Your task to perform on an android device: turn off location history Image 0: 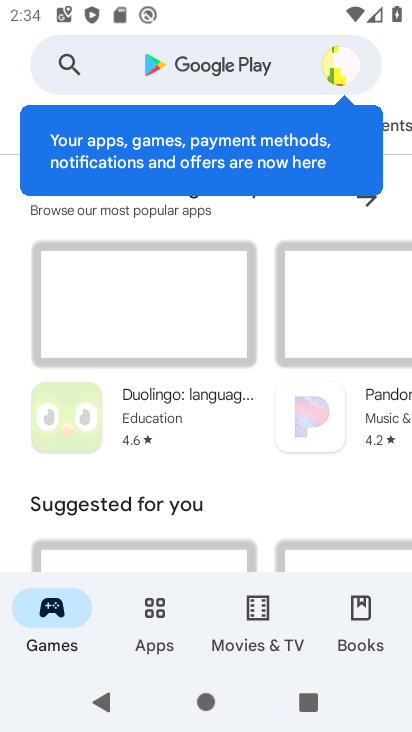
Step 0: press back button
Your task to perform on an android device: turn off location history Image 1: 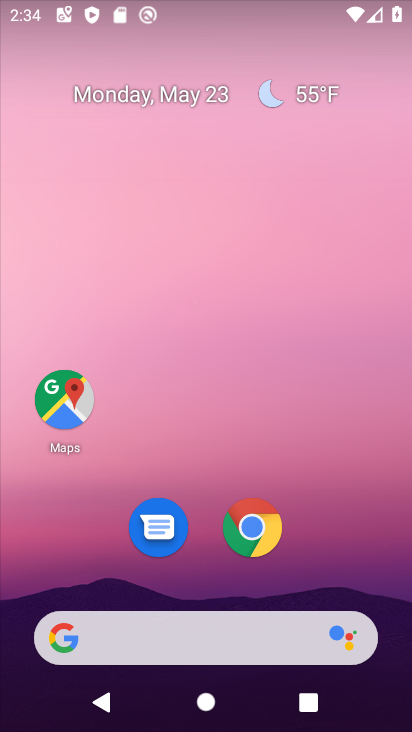
Step 1: drag from (348, 551) to (260, 2)
Your task to perform on an android device: turn off location history Image 2: 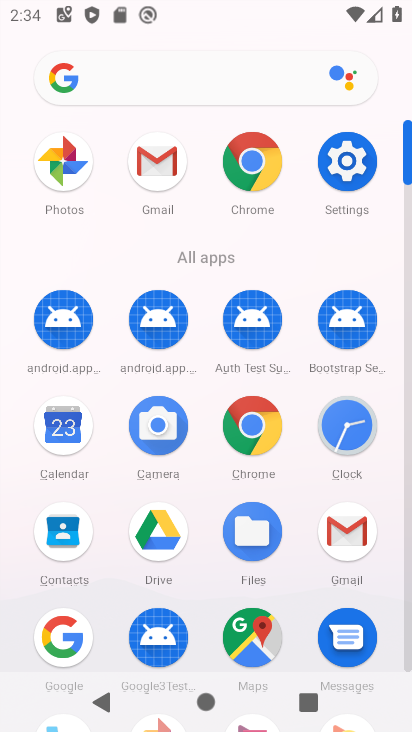
Step 2: click (346, 155)
Your task to perform on an android device: turn off location history Image 3: 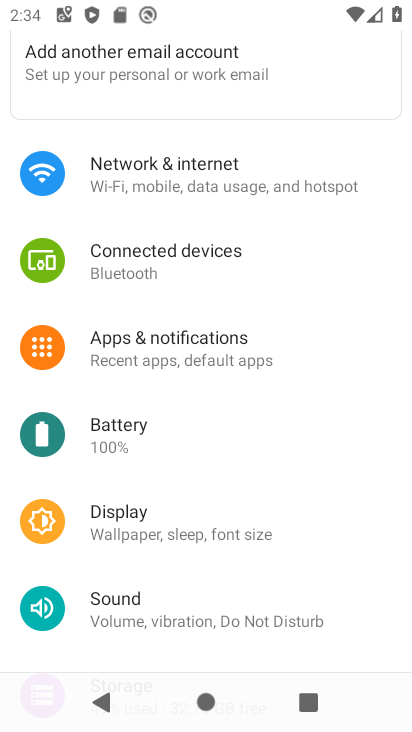
Step 3: drag from (311, 504) to (309, 96)
Your task to perform on an android device: turn off location history Image 4: 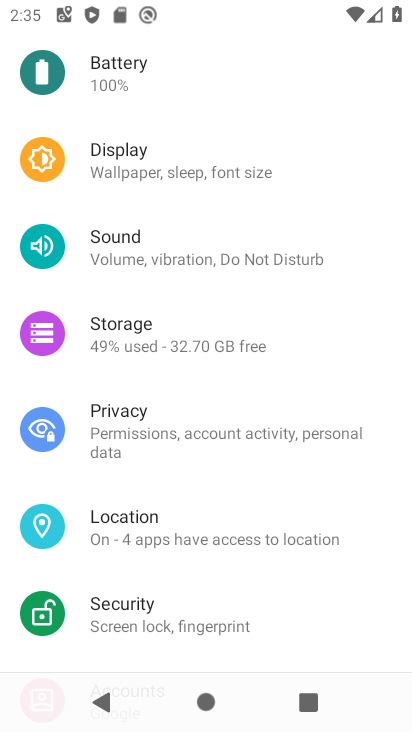
Step 4: drag from (234, 474) to (275, 81)
Your task to perform on an android device: turn off location history Image 5: 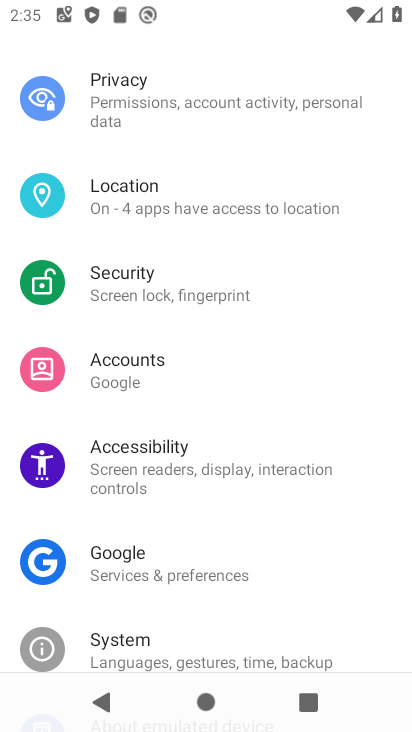
Step 5: drag from (238, 501) to (269, 75)
Your task to perform on an android device: turn off location history Image 6: 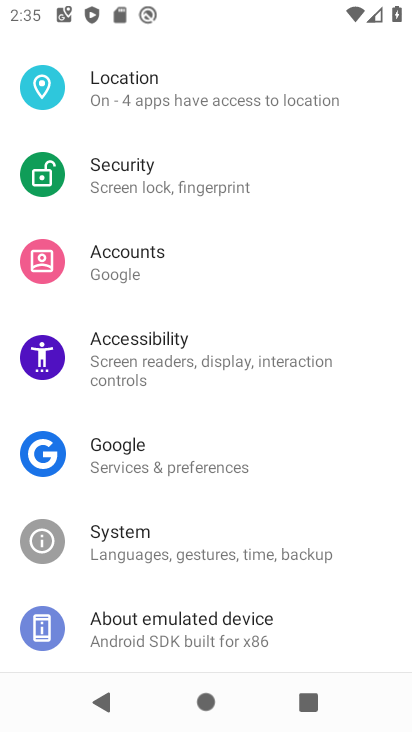
Step 6: drag from (251, 529) to (251, 113)
Your task to perform on an android device: turn off location history Image 7: 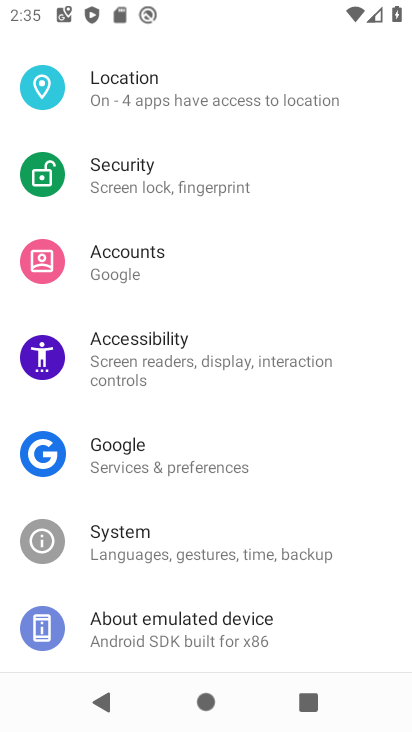
Step 7: click (205, 80)
Your task to perform on an android device: turn off location history Image 8: 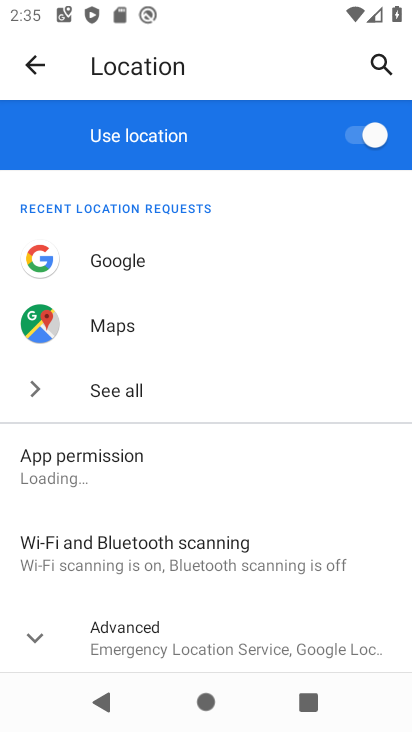
Step 8: click (56, 628)
Your task to perform on an android device: turn off location history Image 9: 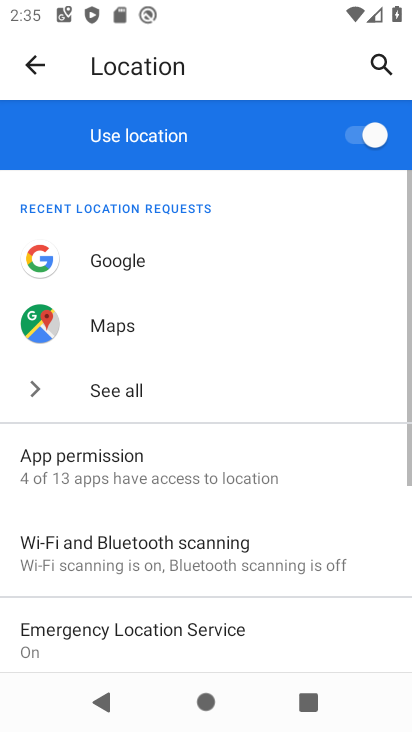
Step 9: drag from (234, 560) to (259, 126)
Your task to perform on an android device: turn off location history Image 10: 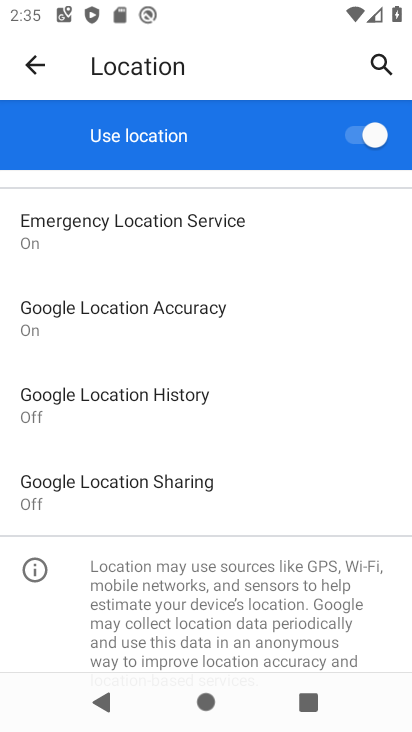
Step 10: click (185, 383)
Your task to perform on an android device: turn off location history Image 11: 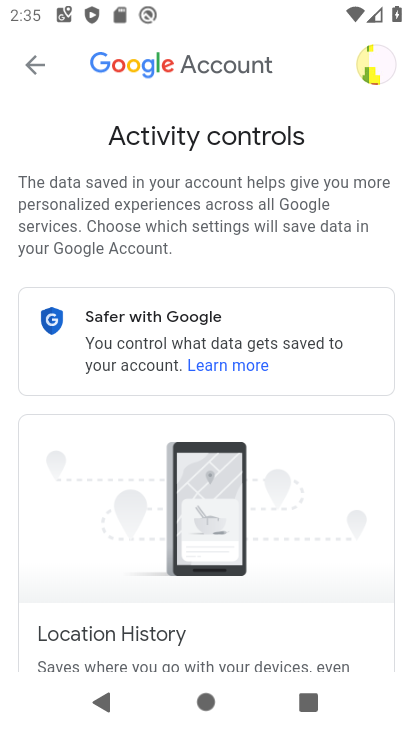
Step 11: task complete